Your task to perform on an android device: Open Google Image 0: 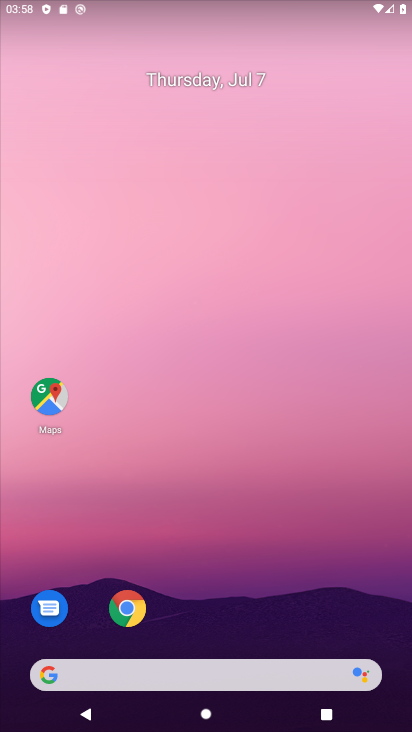
Step 0: drag from (170, 669) to (245, 157)
Your task to perform on an android device: Open Google Image 1: 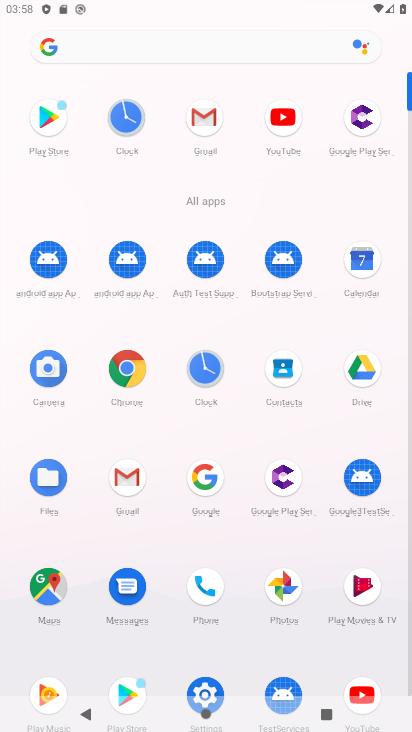
Step 1: click (33, 590)
Your task to perform on an android device: Open Google Image 2: 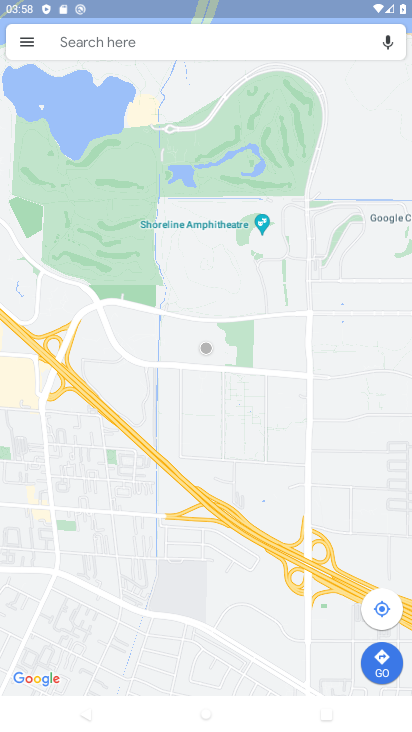
Step 2: task complete